Your task to perform on an android device: change the clock style Image 0: 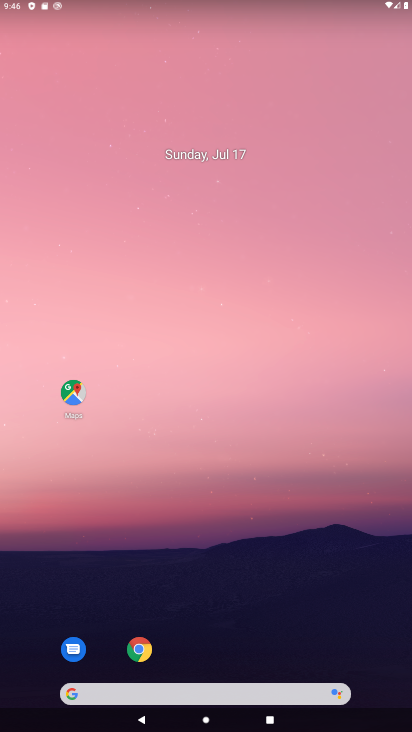
Step 0: click (334, 38)
Your task to perform on an android device: change the clock style Image 1: 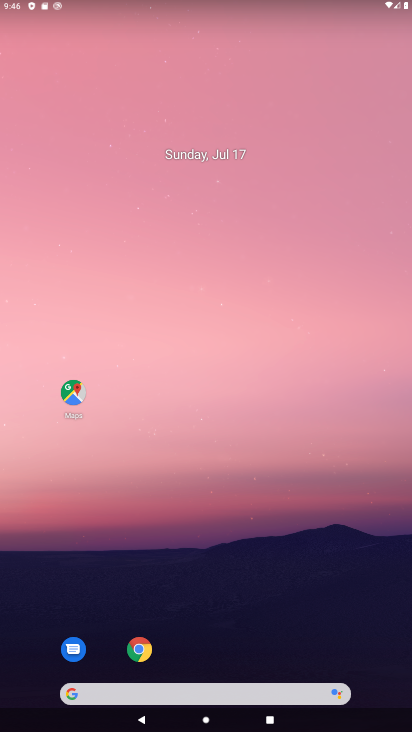
Step 1: drag from (13, 658) to (221, 160)
Your task to perform on an android device: change the clock style Image 2: 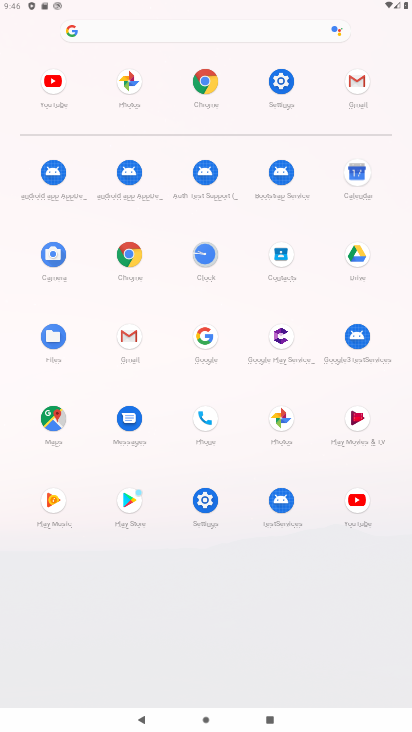
Step 2: click (212, 261)
Your task to perform on an android device: change the clock style Image 3: 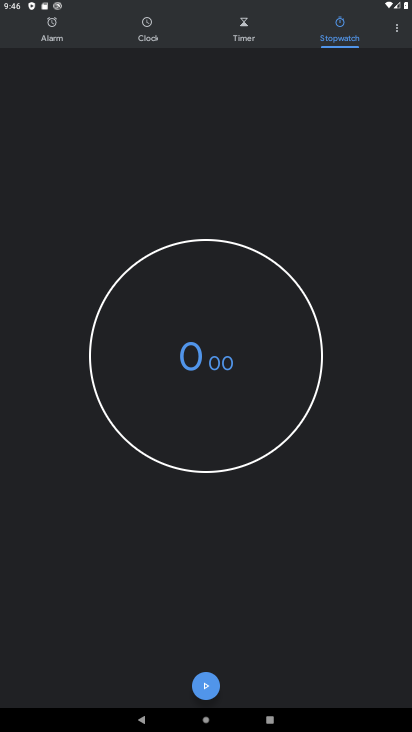
Step 3: click (144, 49)
Your task to perform on an android device: change the clock style Image 4: 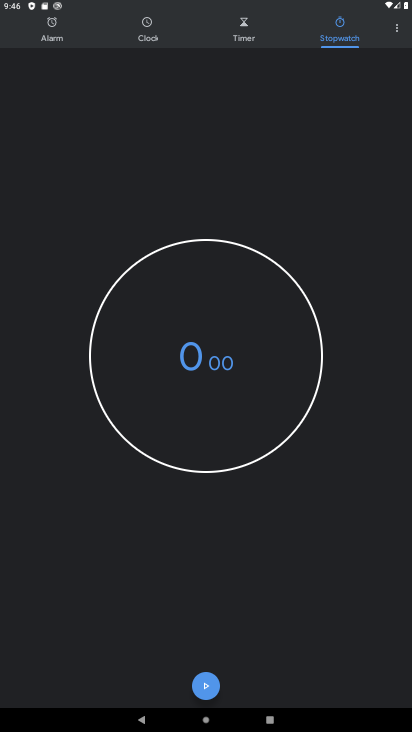
Step 4: click (144, 31)
Your task to perform on an android device: change the clock style Image 5: 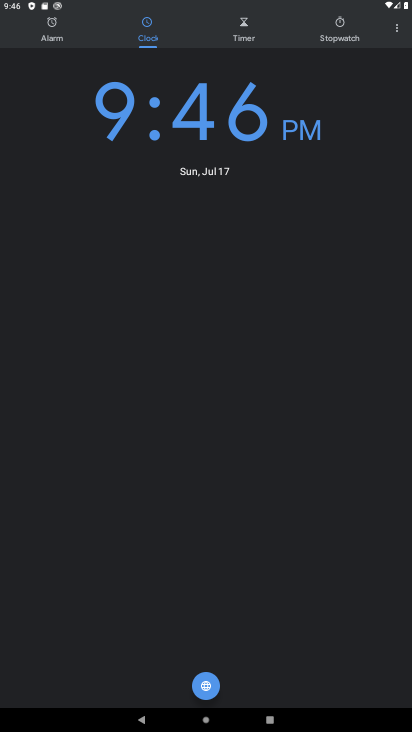
Step 5: click (399, 25)
Your task to perform on an android device: change the clock style Image 6: 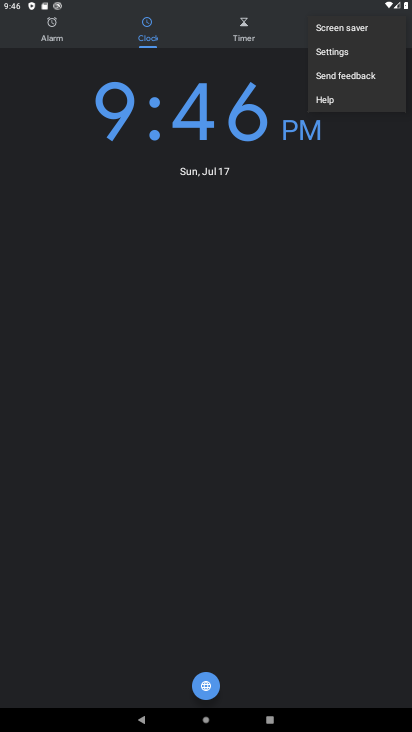
Step 6: click (343, 59)
Your task to perform on an android device: change the clock style Image 7: 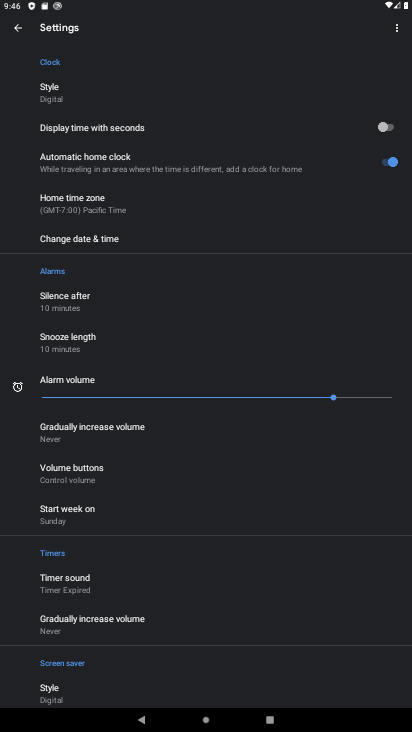
Step 7: click (96, 89)
Your task to perform on an android device: change the clock style Image 8: 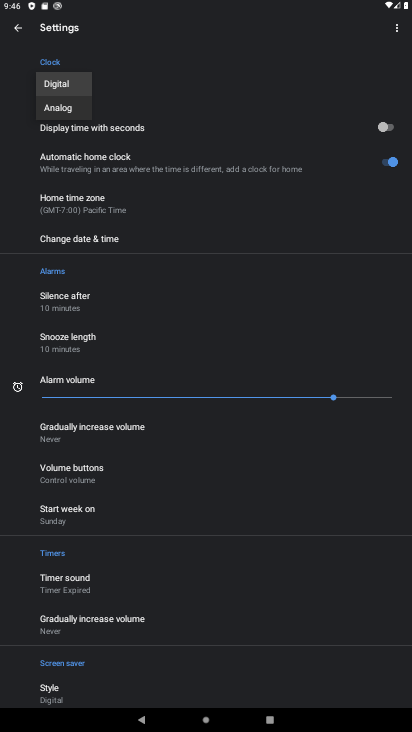
Step 8: click (67, 111)
Your task to perform on an android device: change the clock style Image 9: 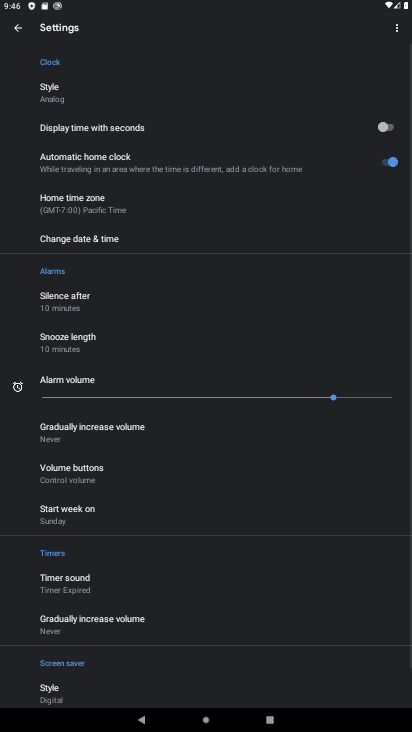
Step 9: task complete